Your task to perform on an android device: Go to sound settings Image 0: 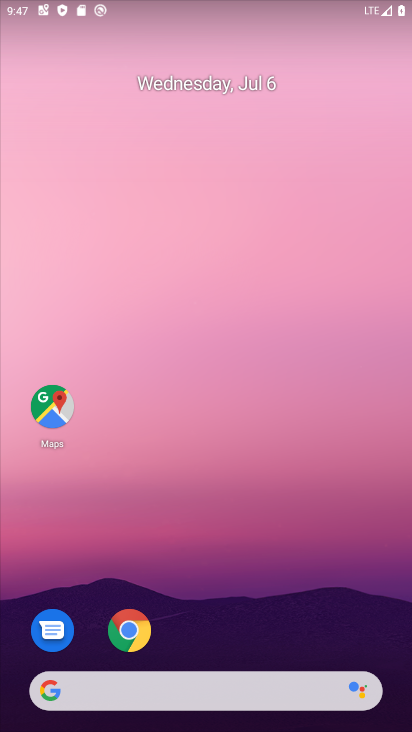
Step 0: drag from (351, 622) to (319, 60)
Your task to perform on an android device: Go to sound settings Image 1: 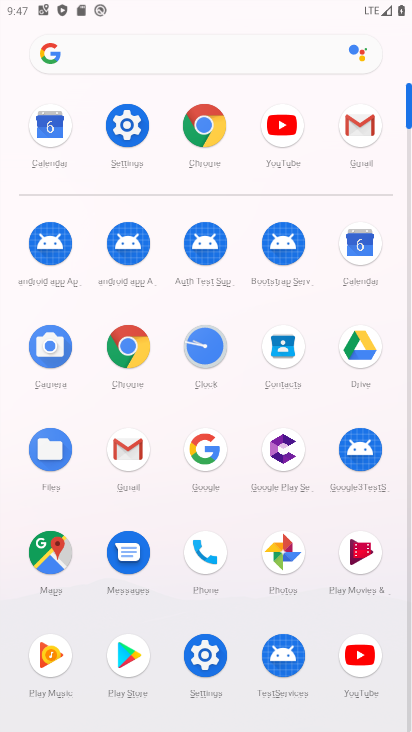
Step 1: click (205, 657)
Your task to perform on an android device: Go to sound settings Image 2: 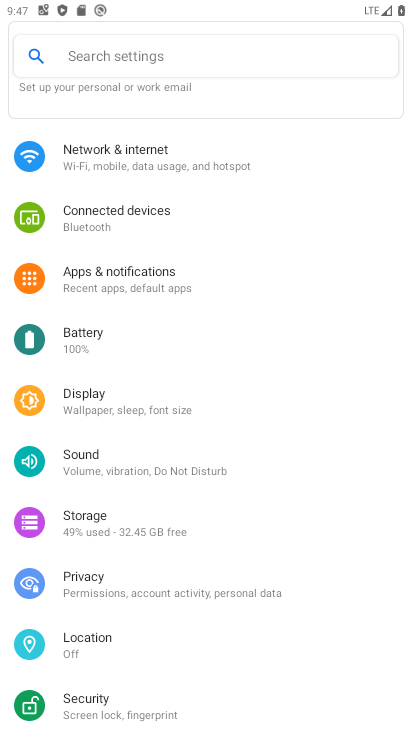
Step 2: click (87, 456)
Your task to perform on an android device: Go to sound settings Image 3: 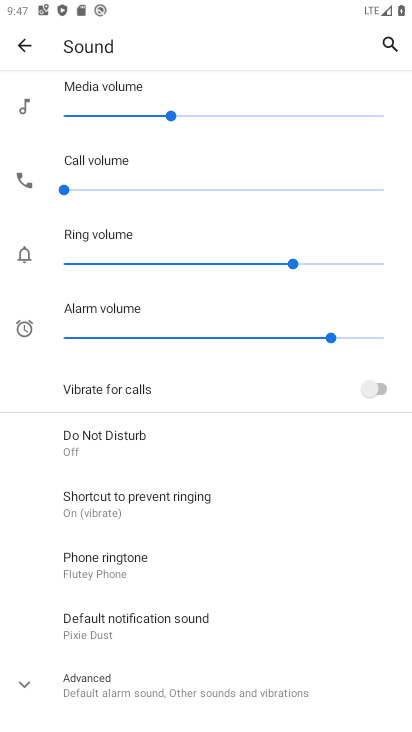
Step 3: drag from (309, 535) to (282, 305)
Your task to perform on an android device: Go to sound settings Image 4: 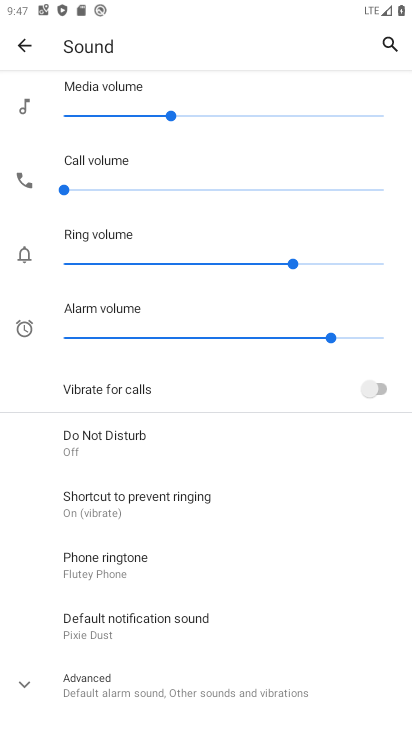
Step 4: click (19, 682)
Your task to perform on an android device: Go to sound settings Image 5: 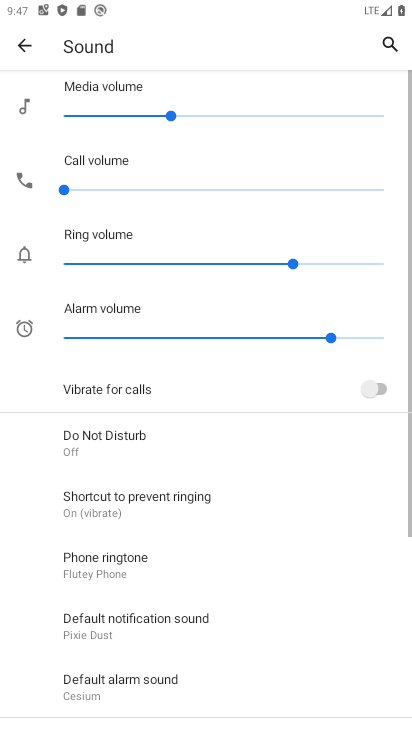
Step 5: task complete